Your task to perform on an android device: turn off location Image 0: 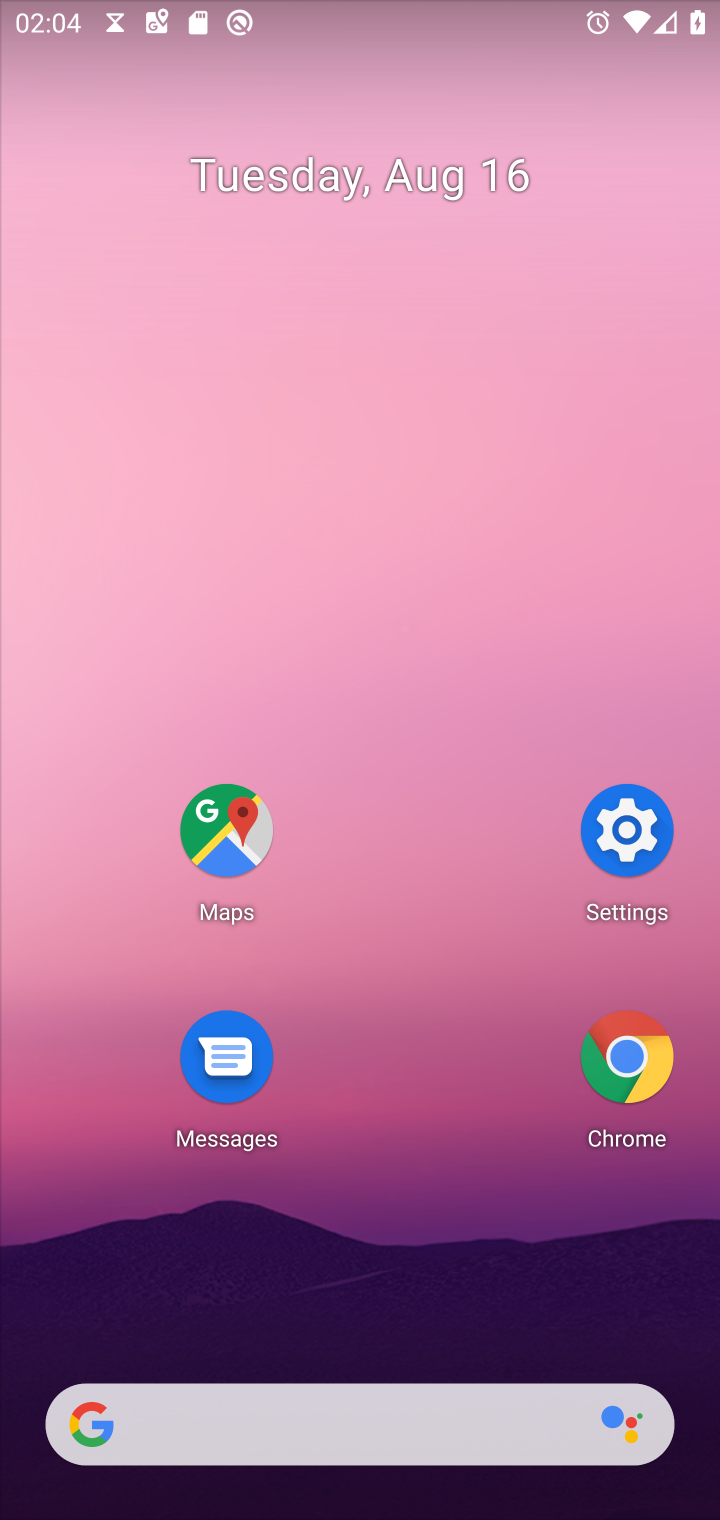
Step 0: click (628, 831)
Your task to perform on an android device: turn off location Image 1: 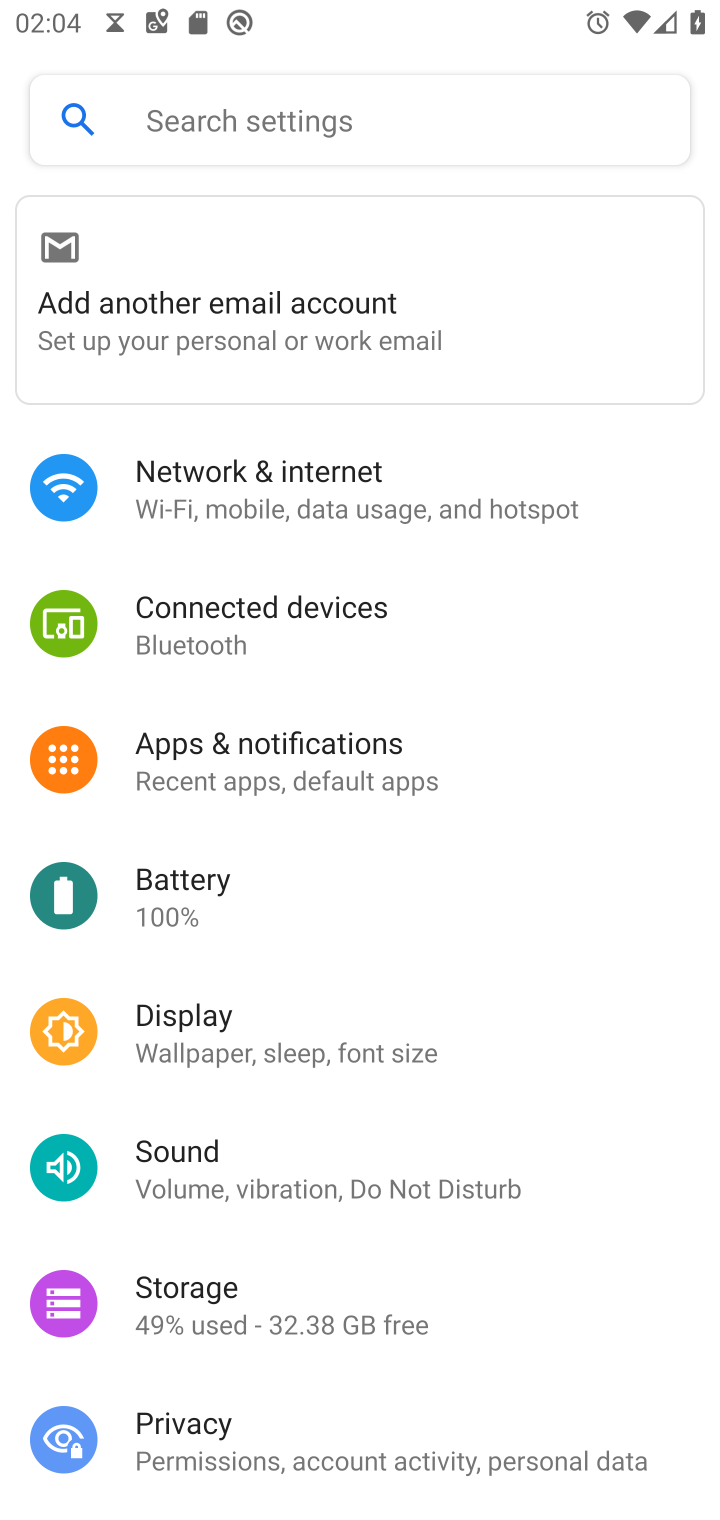
Step 1: drag from (485, 1301) to (648, 197)
Your task to perform on an android device: turn off location Image 2: 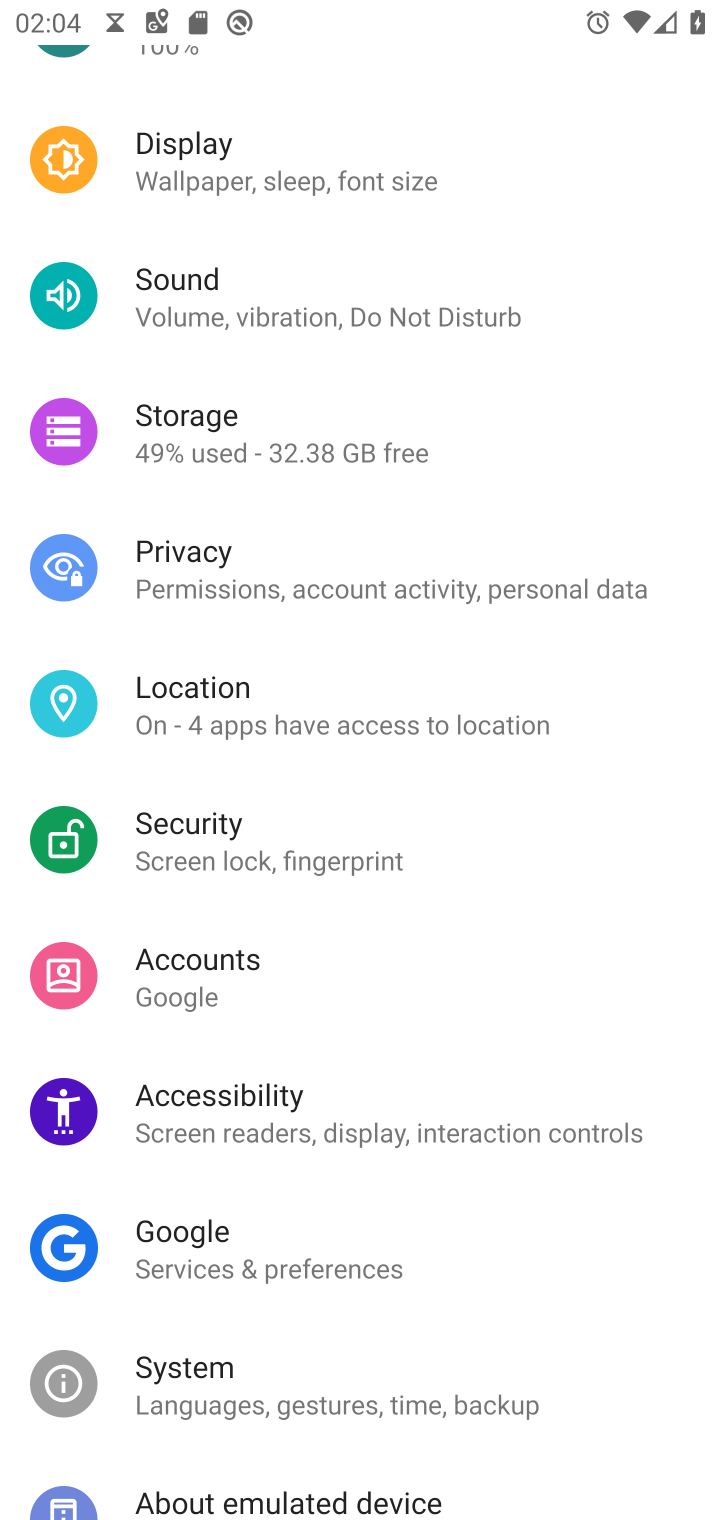
Step 2: click (256, 719)
Your task to perform on an android device: turn off location Image 3: 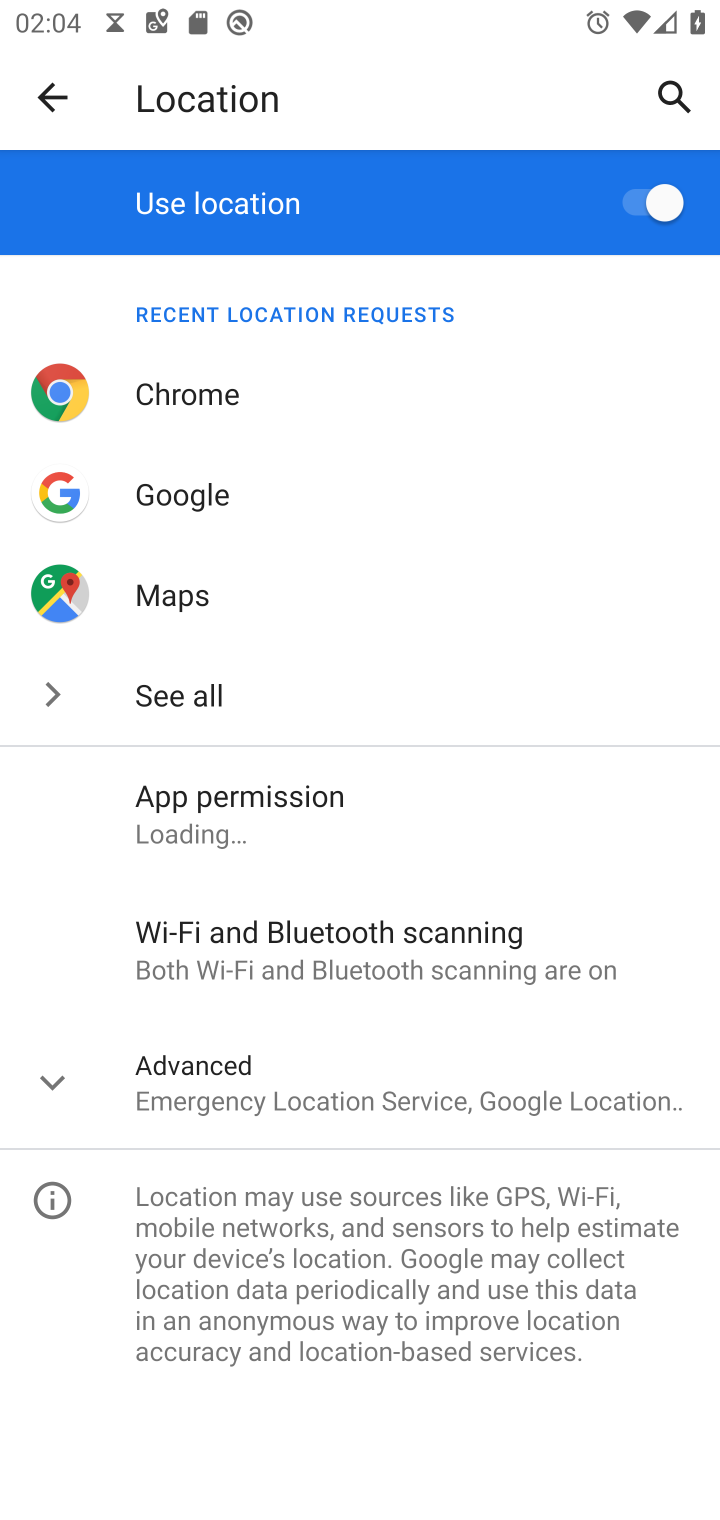
Step 3: click (632, 198)
Your task to perform on an android device: turn off location Image 4: 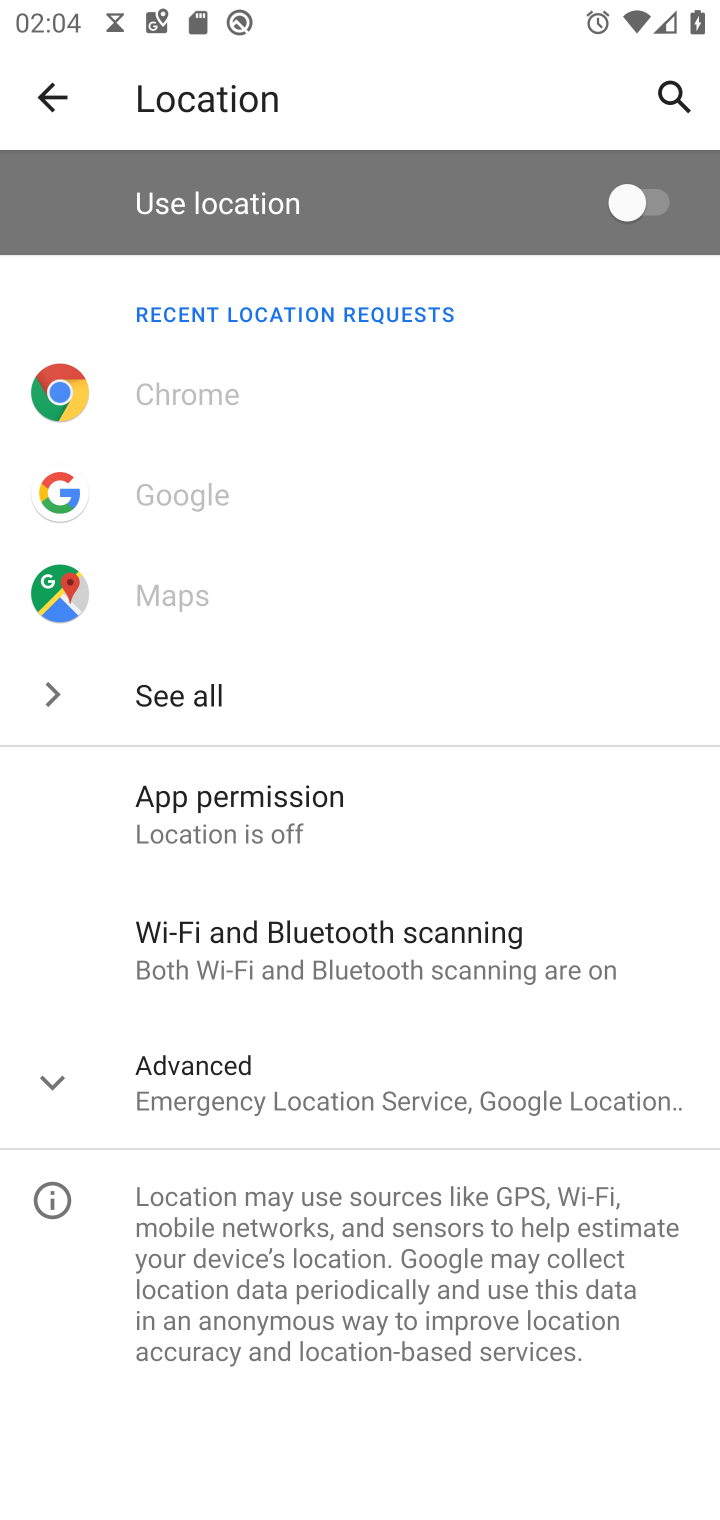
Step 4: task complete